Your task to perform on an android device: allow cookies in the chrome app Image 0: 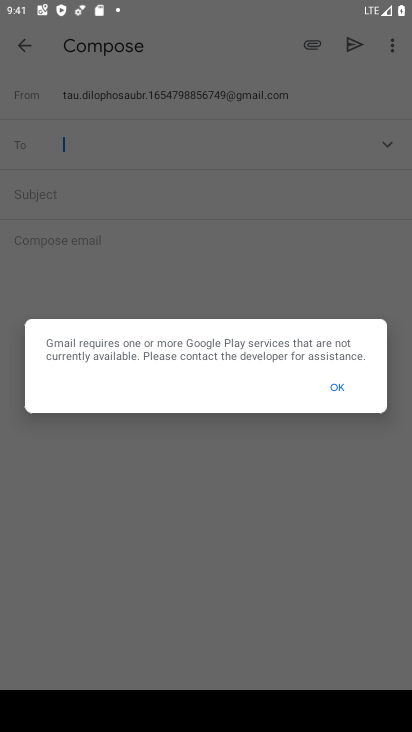
Step 0: press home button
Your task to perform on an android device: allow cookies in the chrome app Image 1: 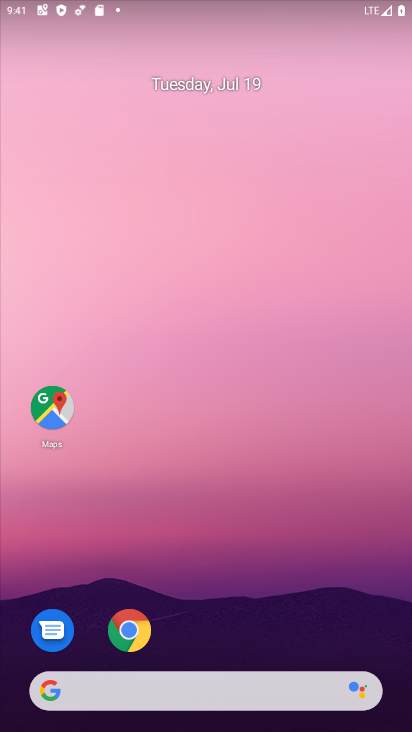
Step 1: drag from (266, 589) to (272, 263)
Your task to perform on an android device: allow cookies in the chrome app Image 2: 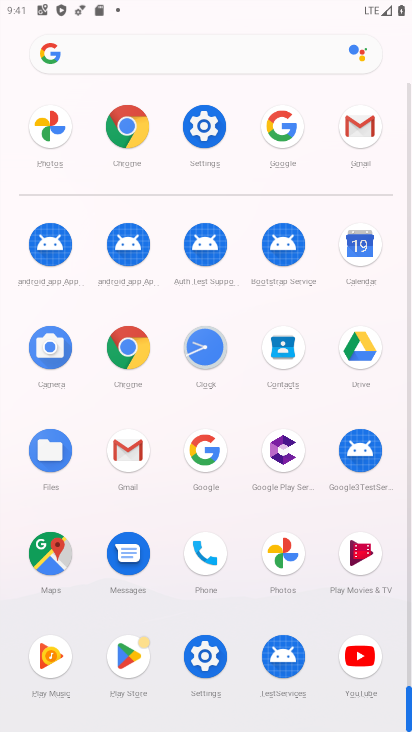
Step 2: click (139, 348)
Your task to perform on an android device: allow cookies in the chrome app Image 3: 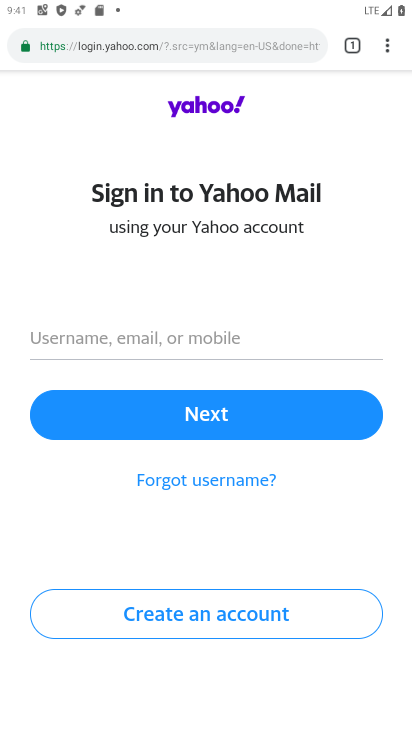
Step 3: click (391, 54)
Your task to perform on an android device: allow cookies in the chrome app Image 4: 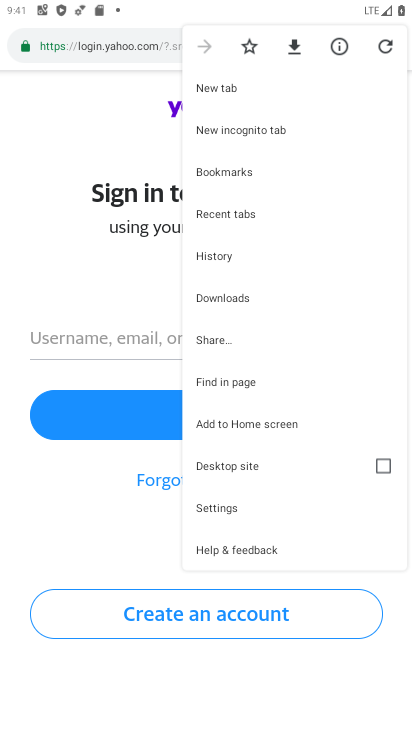
Step 4: click (225, 515)
Your task to perform on an android device: allow cookies in the chrome app Image 5: 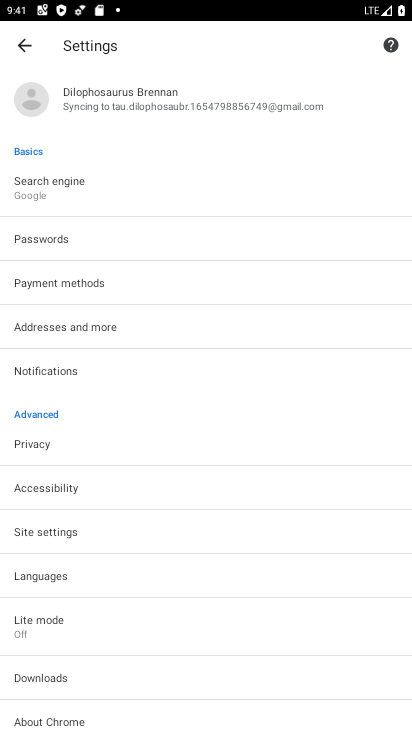
Step 5: click (65, 532)
Your task to perform on an android device: allow cookies in the chrome app Image 6: 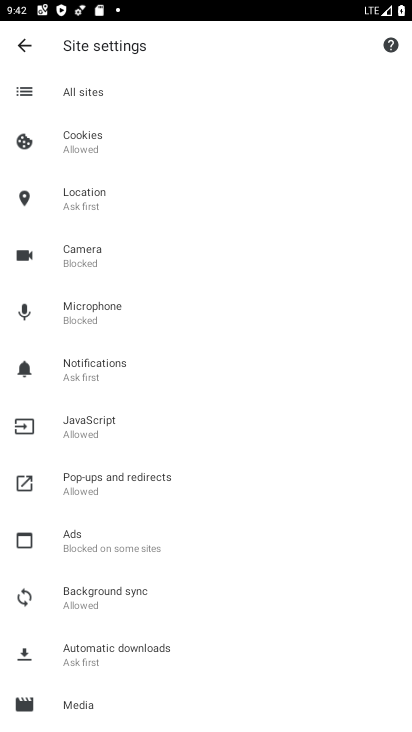
Step 6: click (93, 154)
Your task to perform on an android device: allow cookies in the chrome app Image 7: 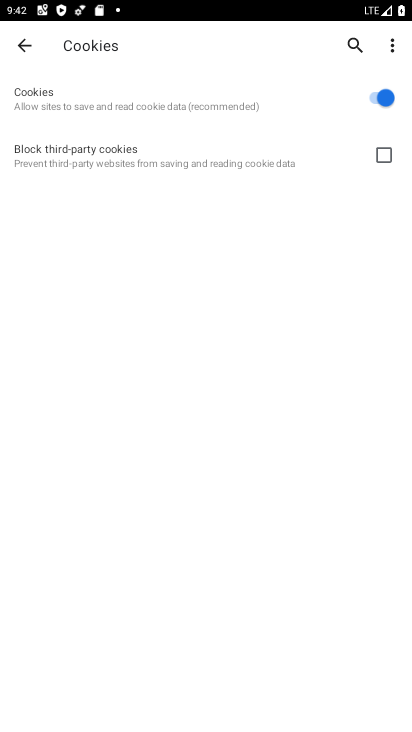
Step 7: task complete